Your task to perform on an android device: uninstall "Pandora - Music & Podcasts" Image 0: 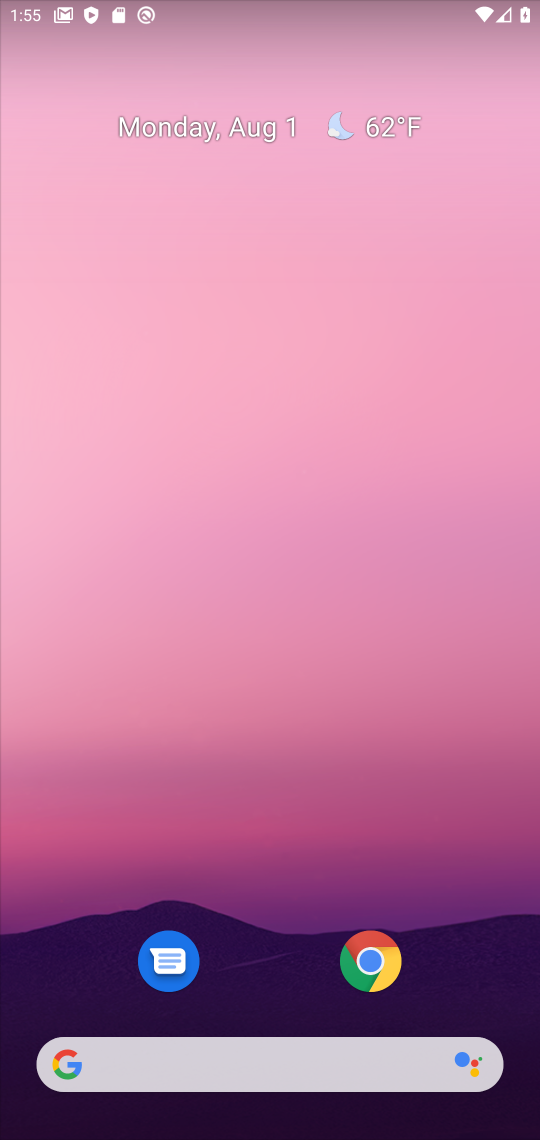
Step 0: press home button
Your task to perform on an android device: uninstall "Pandora - Music & Podcasts" Image 1: 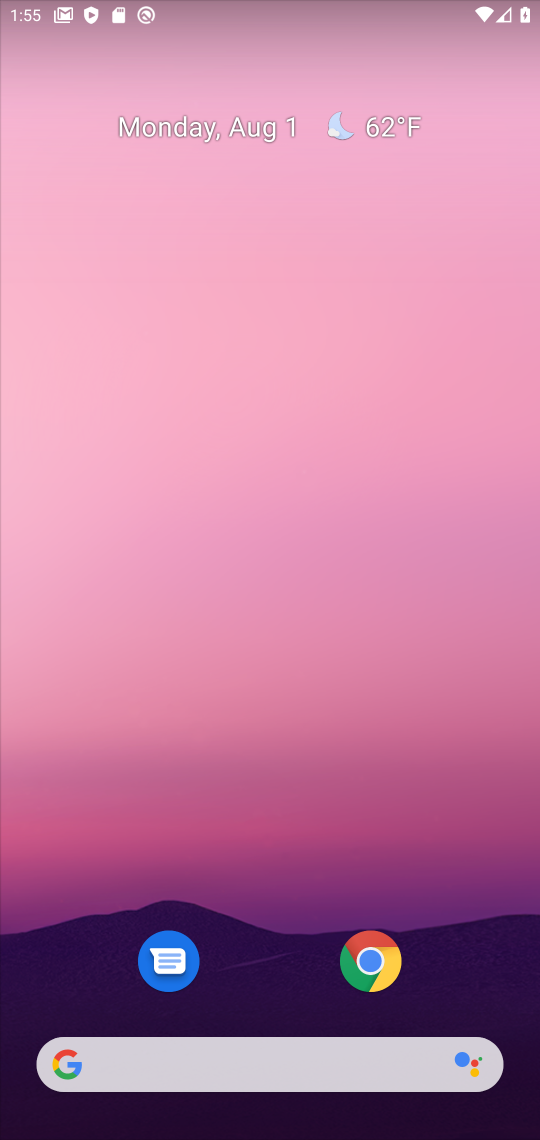
Step 1: drag from (296, 849) to (299, 0)
Your task to perform on an android device: uninstall "Pandora - Music & Podcasts" Image 2: 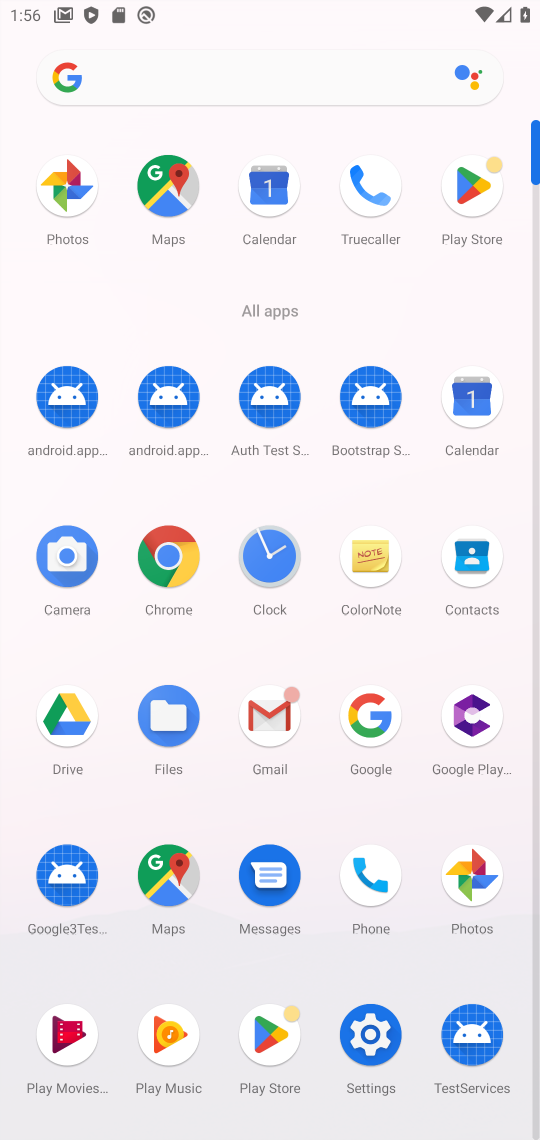
Step 2: click (472, 176)
Your task to perform on an android device: uninstall "Pandora - Music & Podcasts" Image 3: 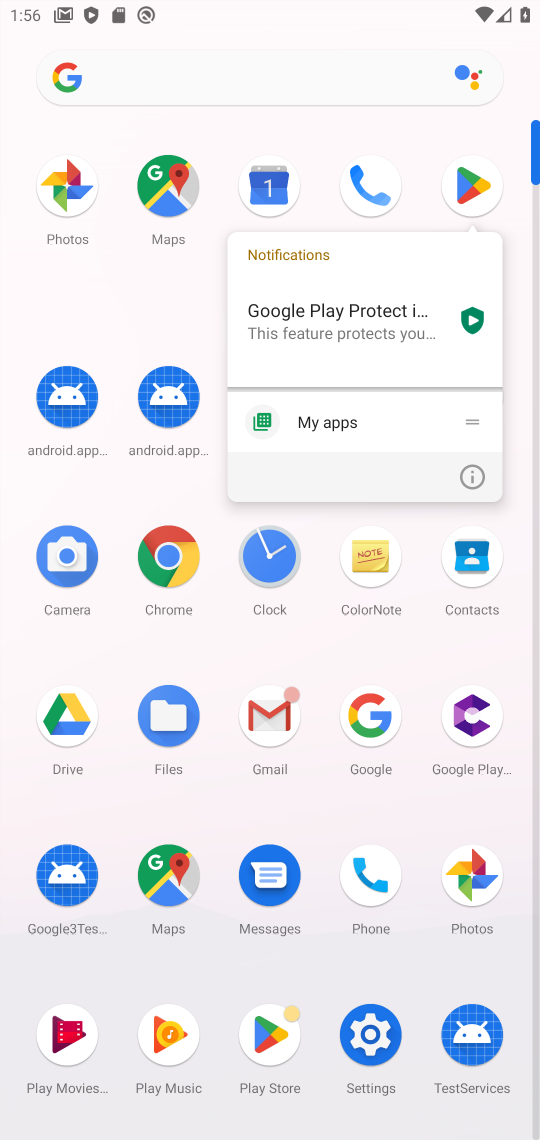
Step 3: click (461, 186)
Your task to perform on an android device: uninstall "Pandora - Music & Podcasts" Image 4: 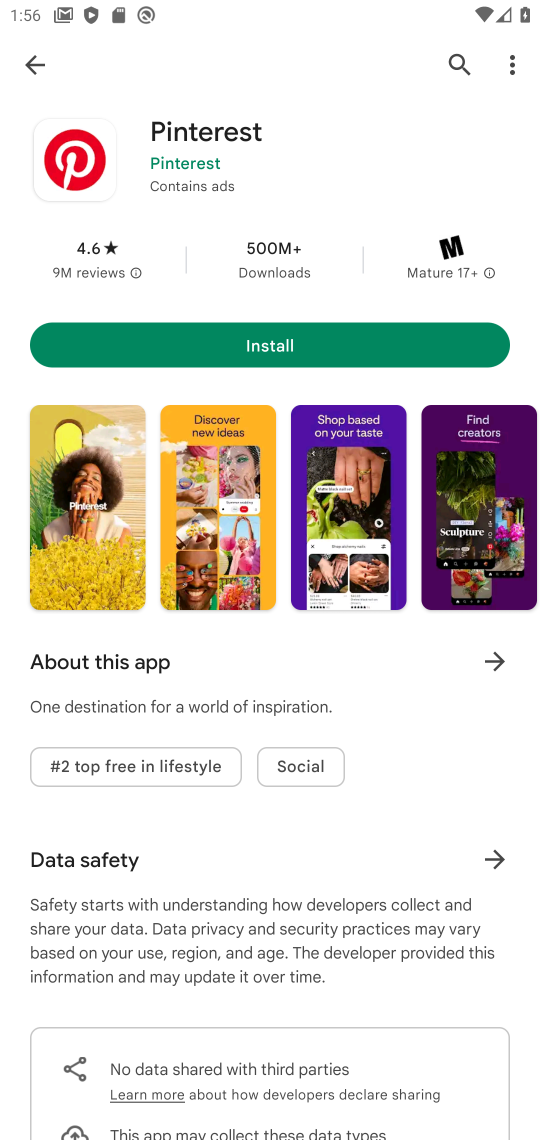
Step 4: click (436, 68)
Your task to perform on an android device: uninstall "Pandora - Music & Podcasts" Image 5: 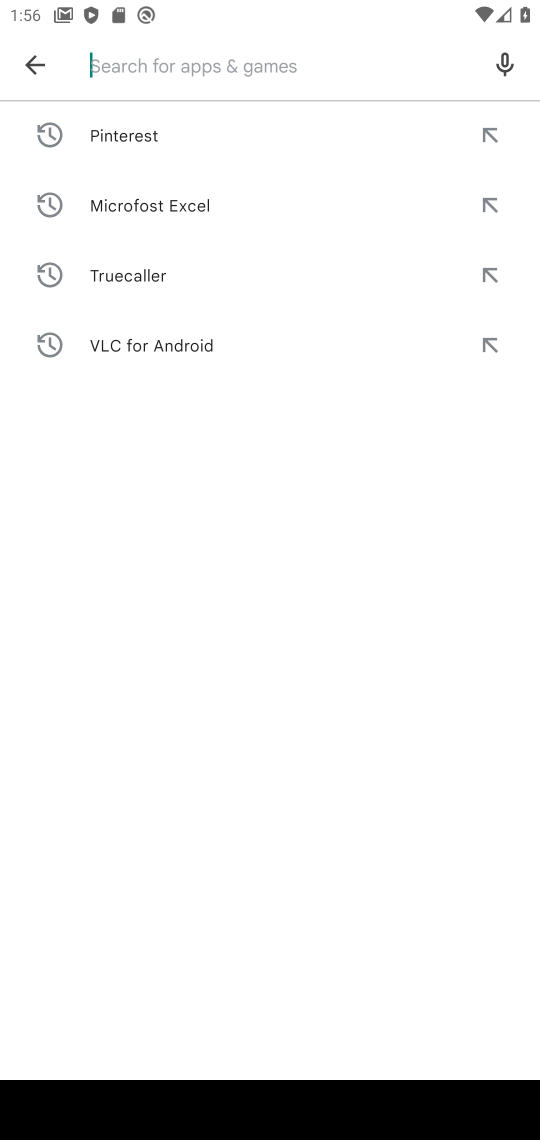
Step 5: click (384, 60)
Your task to perform on an android device: uninstall "Pandora - Music & Podcasts" Image 6: 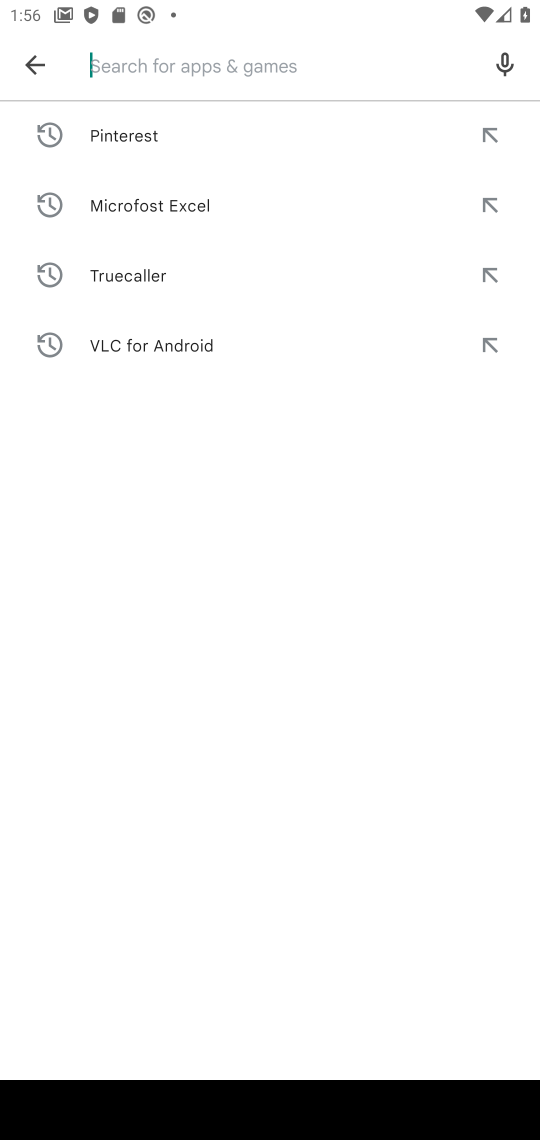
Step 6: type "Pandora - Music & Podcasts"
Your task to perform on an android device: uninstall "Pandora - Music & Podcasts" Image 7: 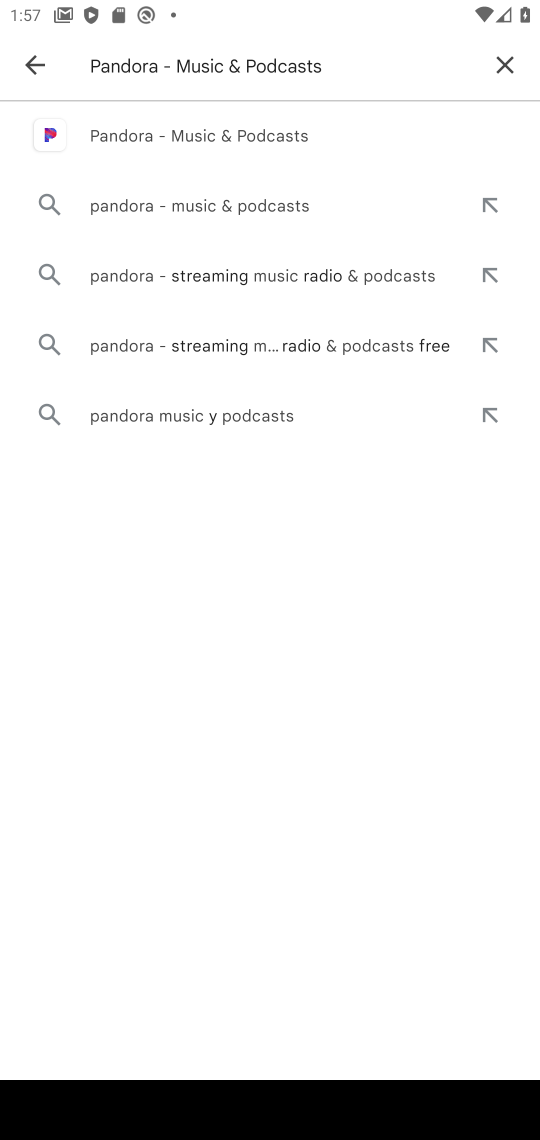
Step 7: press enter
Your task to perform on an android device: uninstall "Pandora - Music & Podcasts" Image 8: 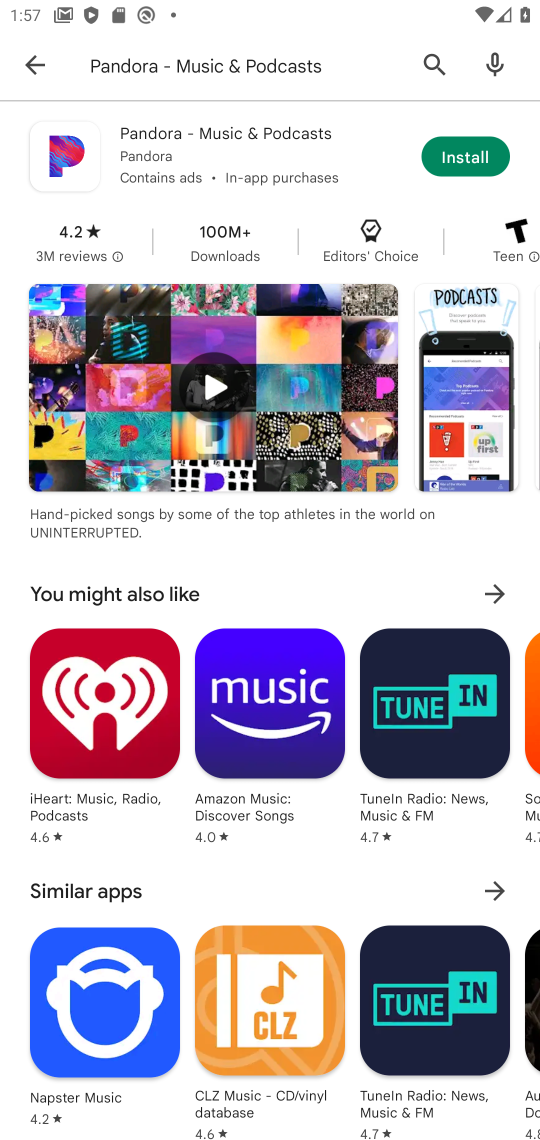
Step 8: click (229, 169)
Your task to perform on an android device: uninstall "Pandora - Music & Podcasts" Image 9: 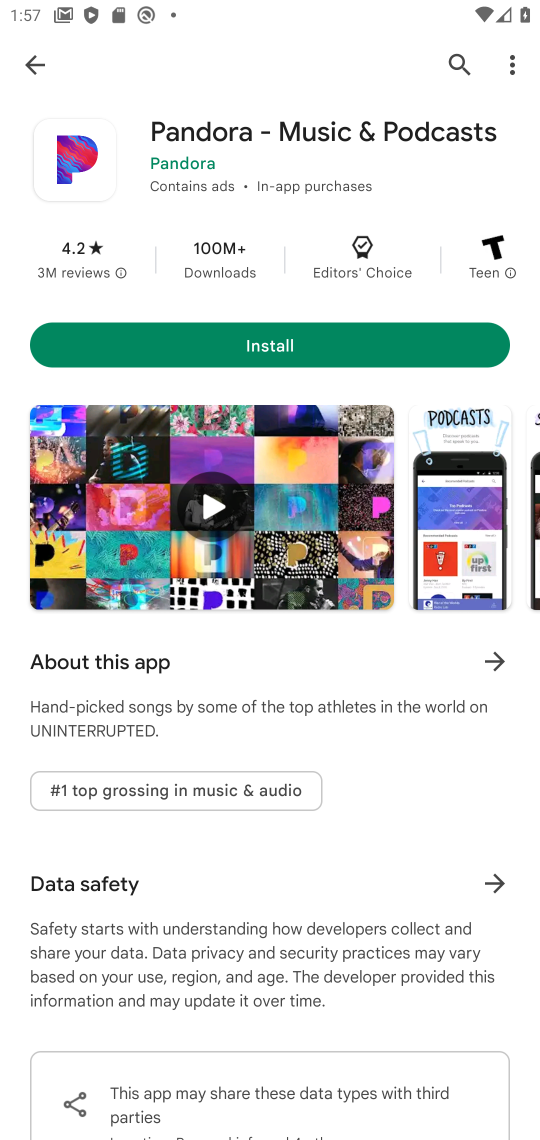
Step 9: task complete